Your task to perform on an android device: check google app version Image 0: 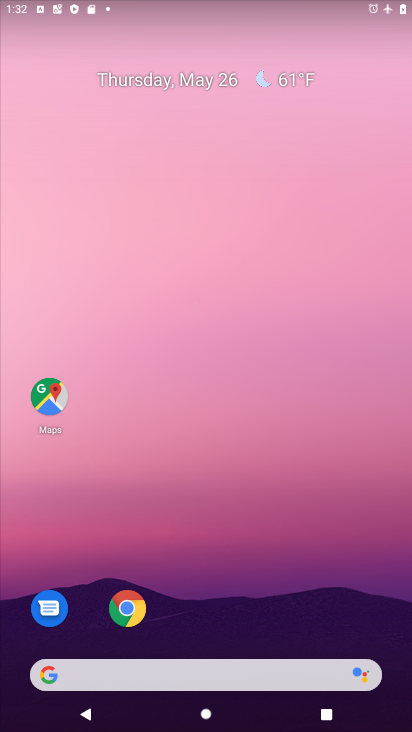
Step 0: click (129, 611)
Your task to perform on an android device: check google app version Image 1: 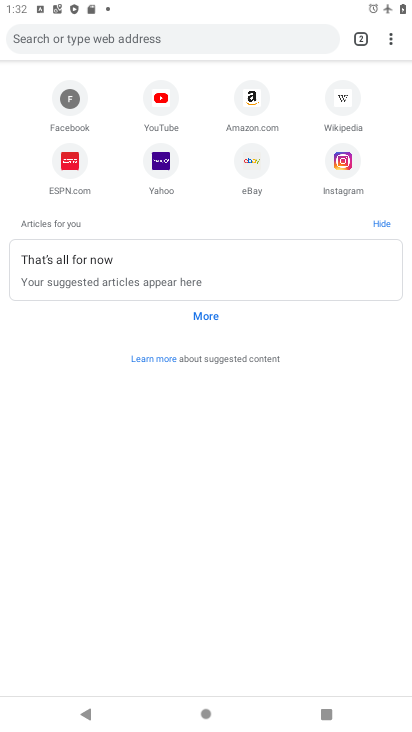
Step 1: click (391, 41)
Your task to perform on an android device: check google app version Image 2: 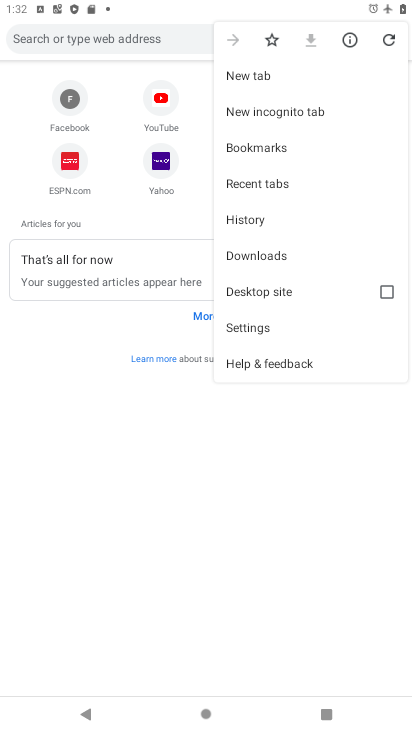
Step 2: click (260, 329)
Your task to perform on an android device: check google app version Image 3: 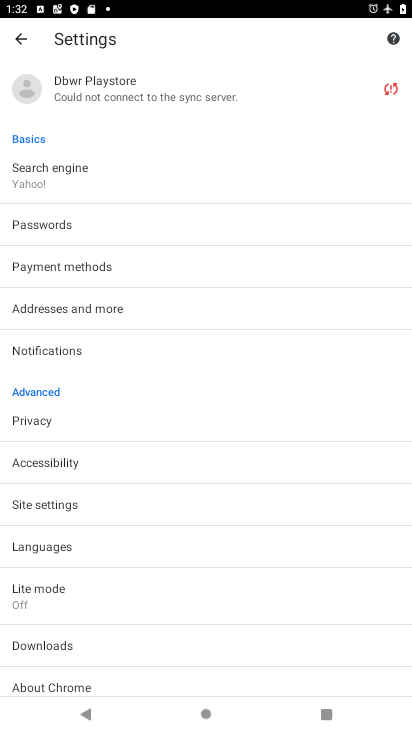
Step 3: click (54, 681)
Your task to perform on an android device: check google app version Image 4: 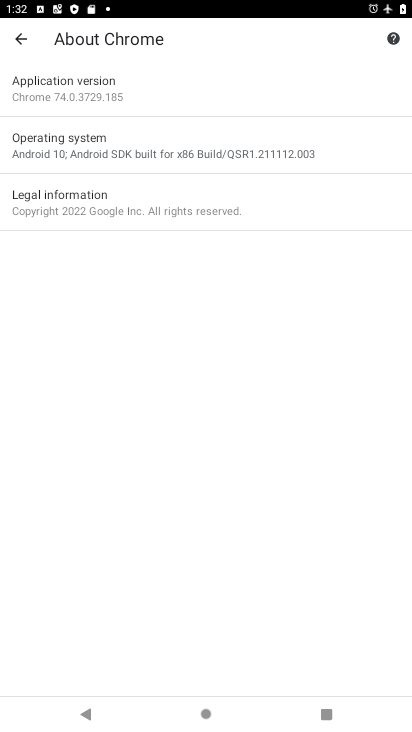
Step 4: click (92, 82)
Your task to perform on an android device: check google app version Image 5: 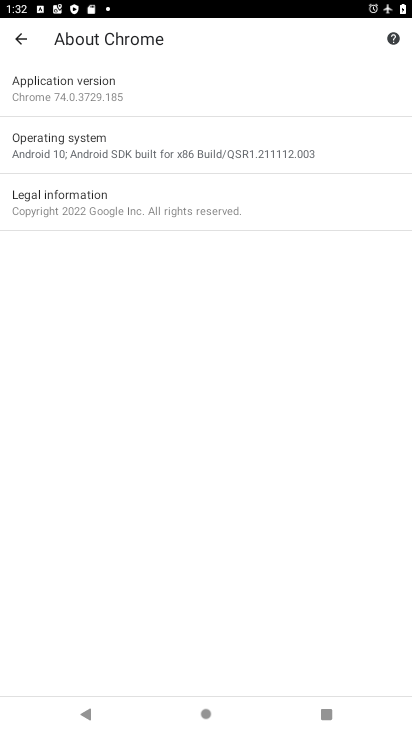
Step 5: task complete